Your task to perform on an android device: toggle location history Image 0: 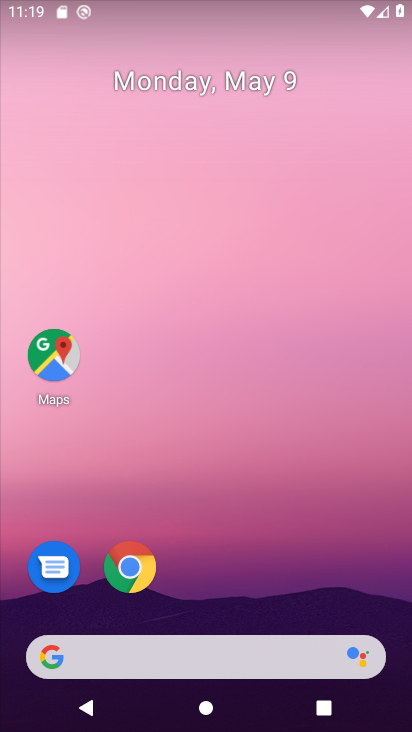
Step 0: drag from (234, 593) to (299, 18)
Your task to perform on an android device: toggle location history Image 1: 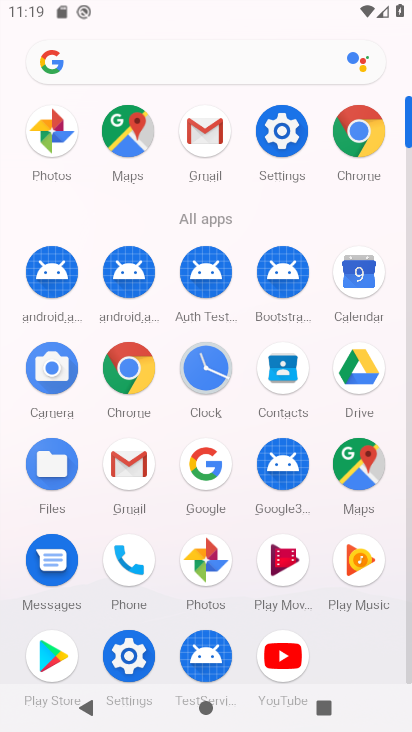
Step 1: click (283, 163)
Your task to perform on an android device: toggle location history Image 2: 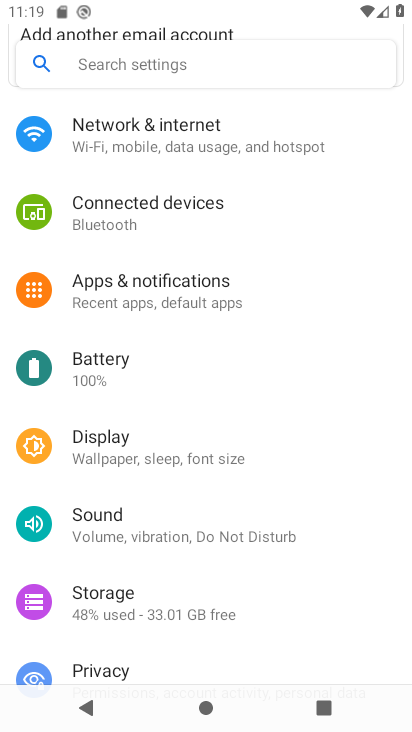
Step 2: drag from (178, 608) to (244, 221)
Your task to perform on an android device: toggle location history Image 3: 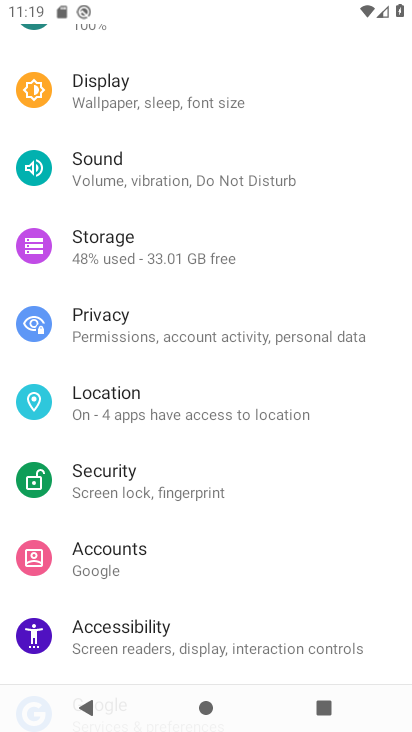
Step 3: click (123, 414)
Your task to perform on an android device: toggle location history Image 4: 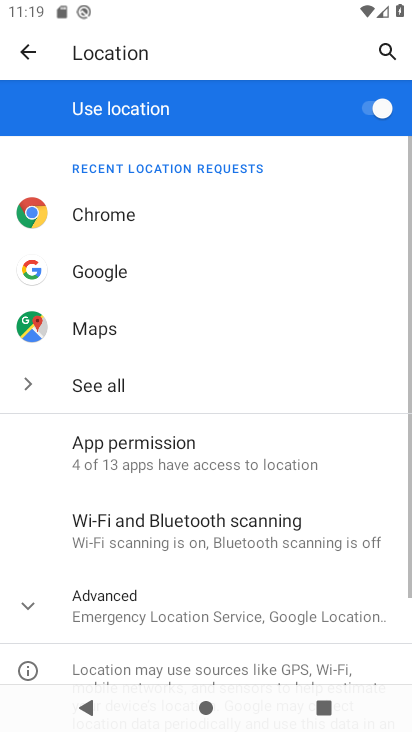
Step 4: click (169, 608)
Your task to perform on an android device: toggle location history Image 5: 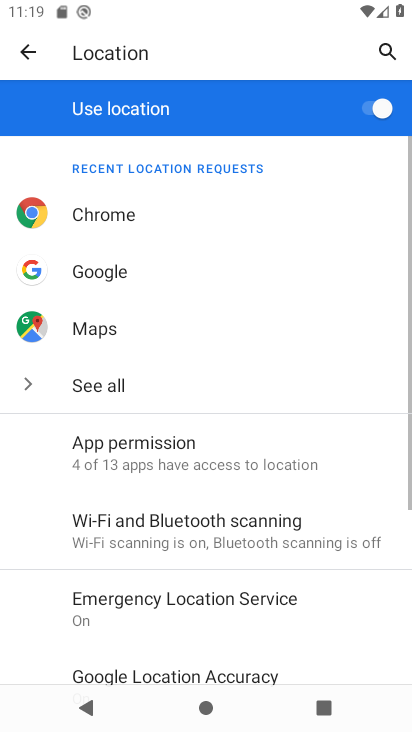
Step 5: drag from (169, 607) to (219, 302)
Your task to perform on an android device: toggle location history Image 6: 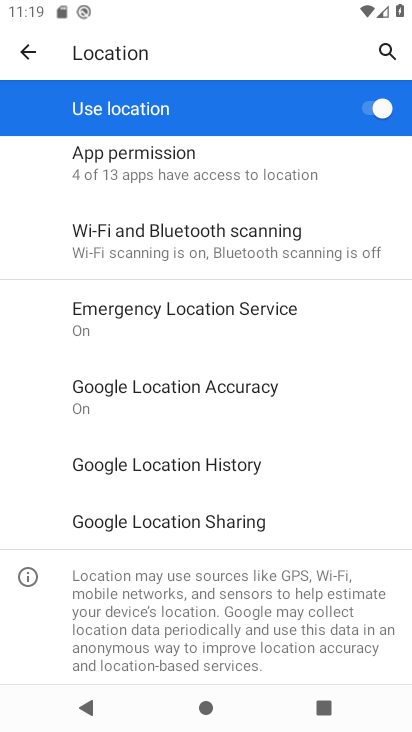
Step 6: click (182, 467)
Your task to perform on an android device: toggle location history Image 7: 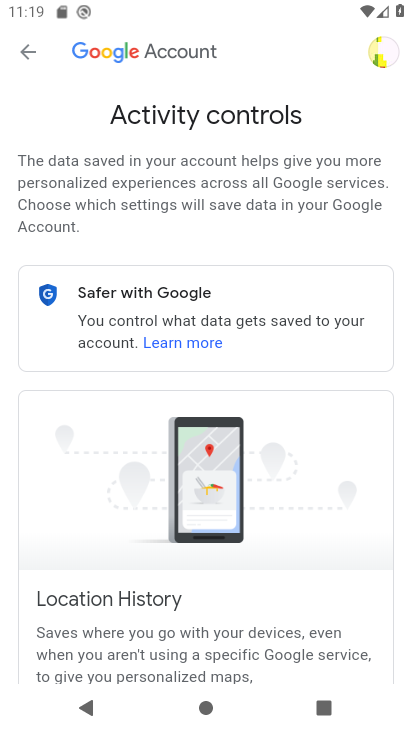
Step 7: drag from (174, 552) to (263, 87)
Your task to perform on an android device: toggle location history Image 8: 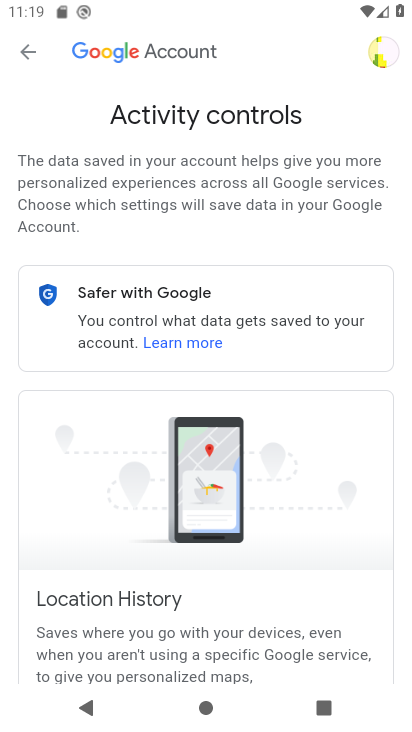
Step 8: drag from (197, 604) to (249, 173)
Your task to perform on an android device: toggle location history Image 9: 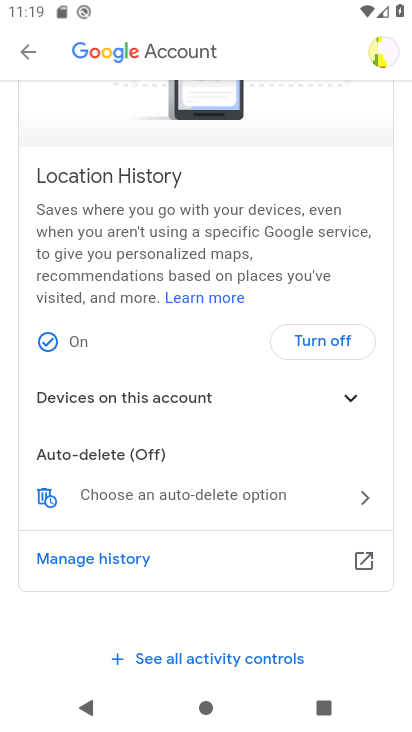
Step 9: click (310, 342)
Your task to perform on an android device: toggle location history Image 10: 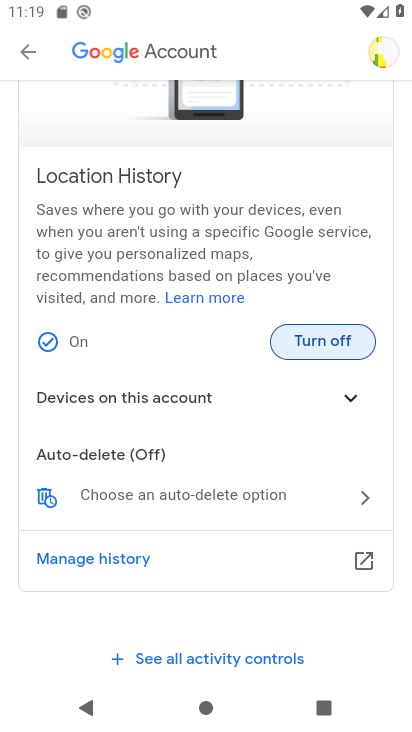
Step 10: click (321, 340)
Your task to perform on an android device: toggle location history Image 11: 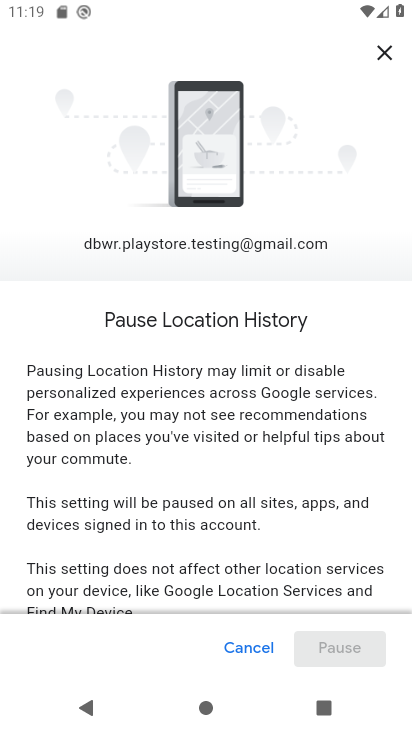
Step 11: drag from (227, 579) to (270, 159)
Your task to perform on an android device: toggle location history Image 12: 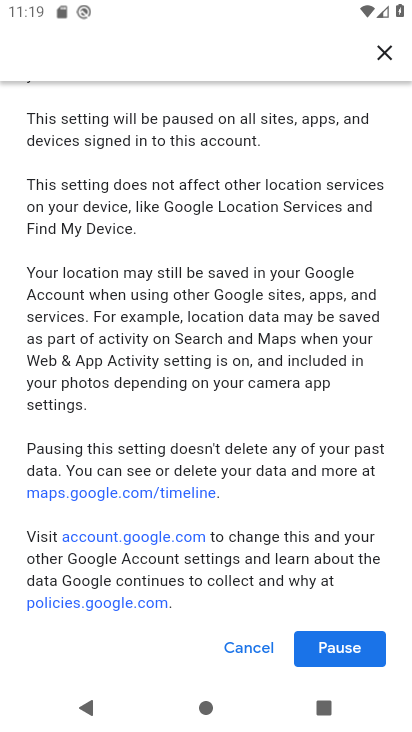
Step 12: click (320, 648)
Your task to perform on an android device: toggle location history Image 13: 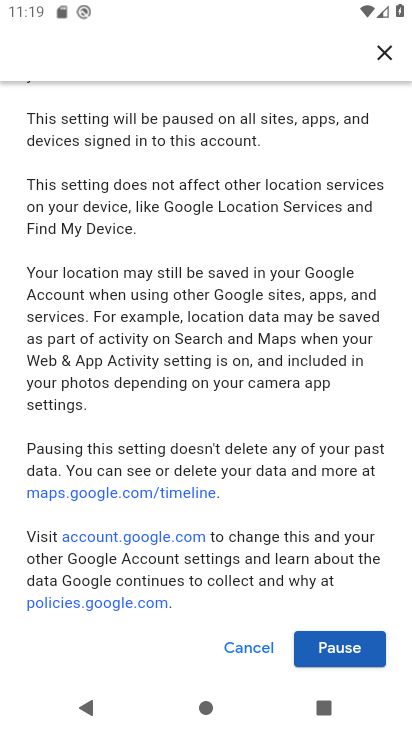
Step 13: click (342, 645)
Your task to perform on an android device: toggle location history Image 14: 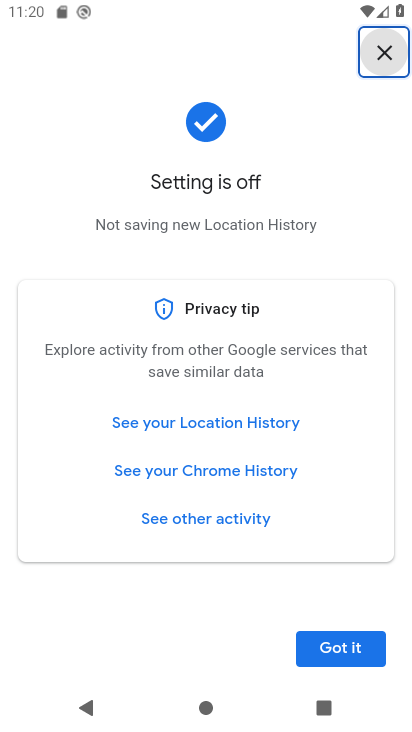
Step 14: click (344, 645)
Your task to perform on an android device: toggle location history Image 15: 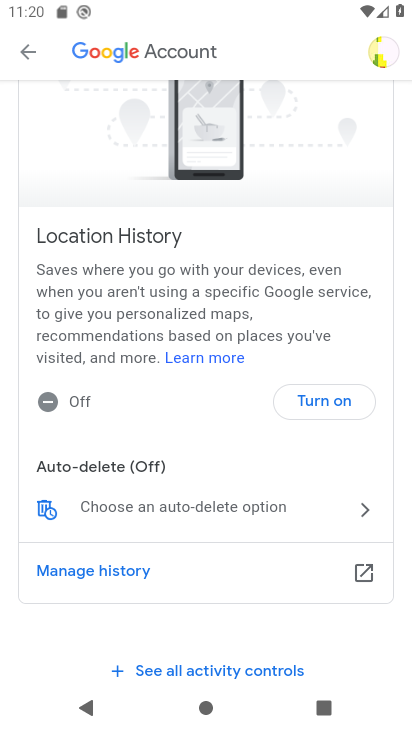
Step 15: task complete